Your task to perform on an android device: Open Google Chrome and click the shortcut for Amazon.com Image 0: 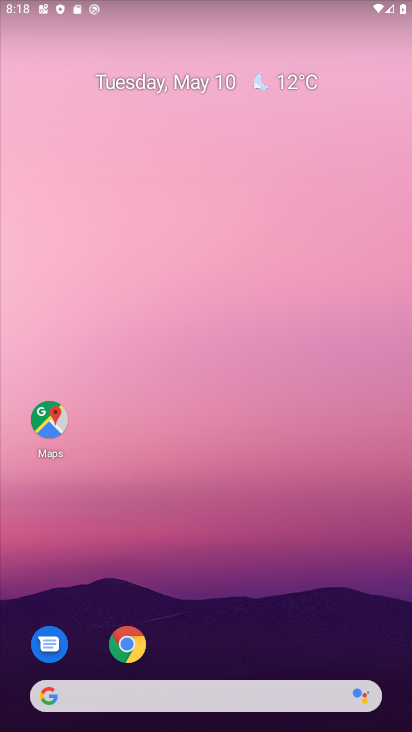
Step 0: click (125, 644)
Your task to perform on an android device: Open Google Chrome and click the shortcut for Amazon.com Image 1: 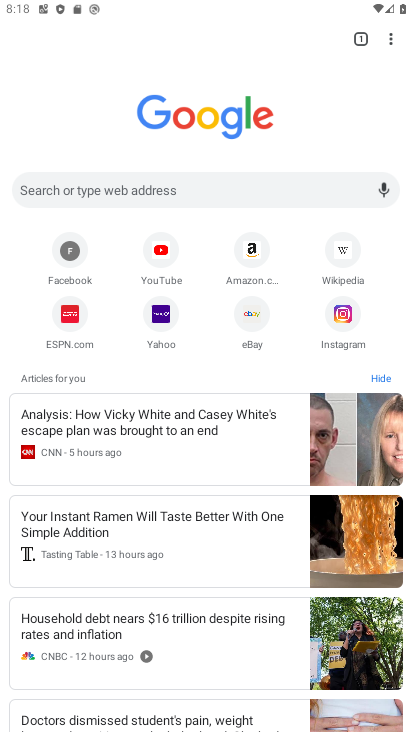
Step 1: click (253, 248)
Your task to perform on an android device: Open Google Chrome and click the shortcut for Amazon.com Image 2: 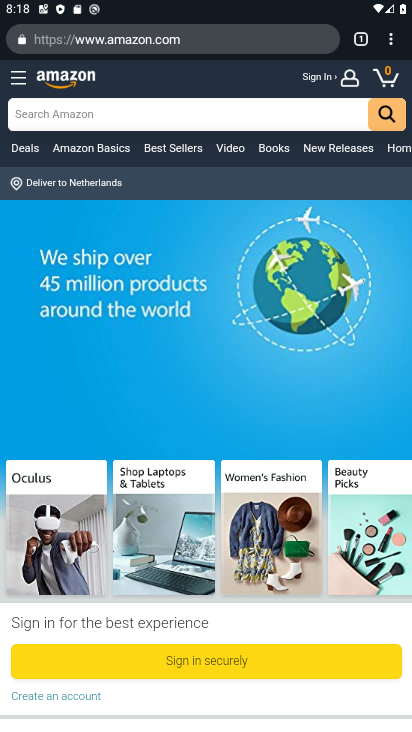
Step 2: task complete